Your task to perform on an android device: Search for pizza restaurants on Maps Image 0: 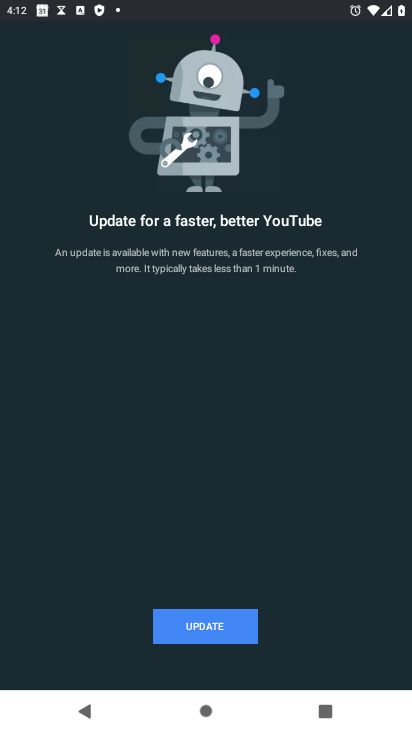
Step 0: press home button
Your task to perform on an android device: Search for pizza restaurants on Maps Image 1: 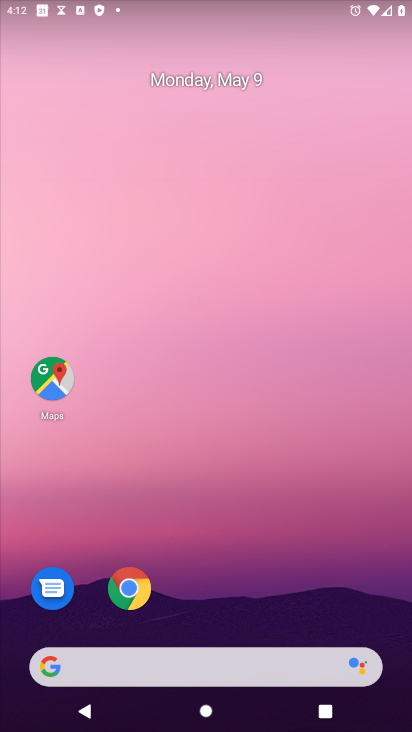
Step 1: click (56, 375)
Your task to perform on an android device: Search for pizza restaurants on Maps Image 2: 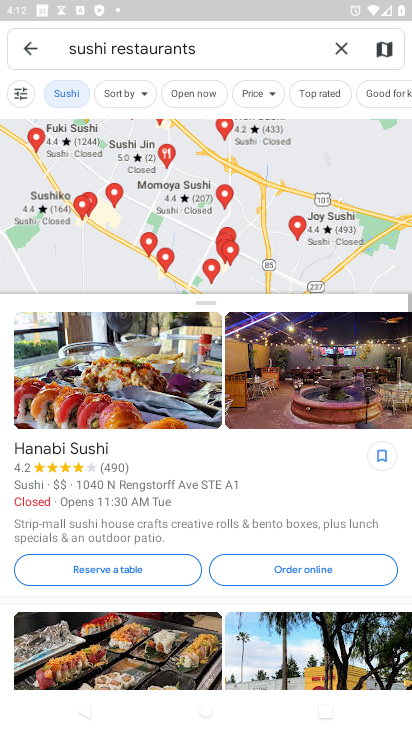
Step 2: click (330, 44)
Your task to perform on an android device: Search for pizza restaurants on Maps Image 3: 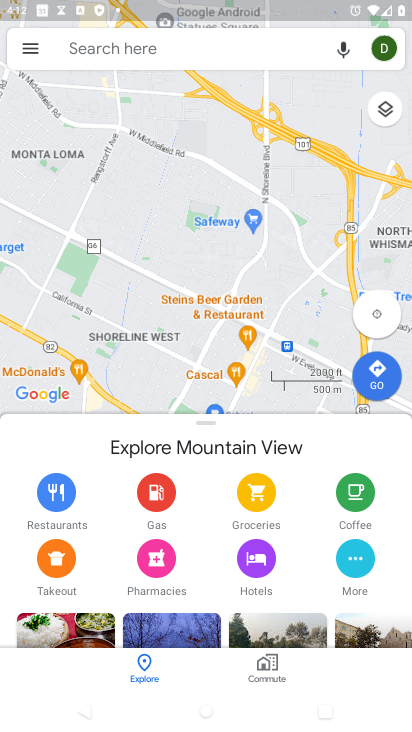
Step 3: click (135, 46)
Your task to perform on an android device: Search for pizza restaurants on Maps Image 4: 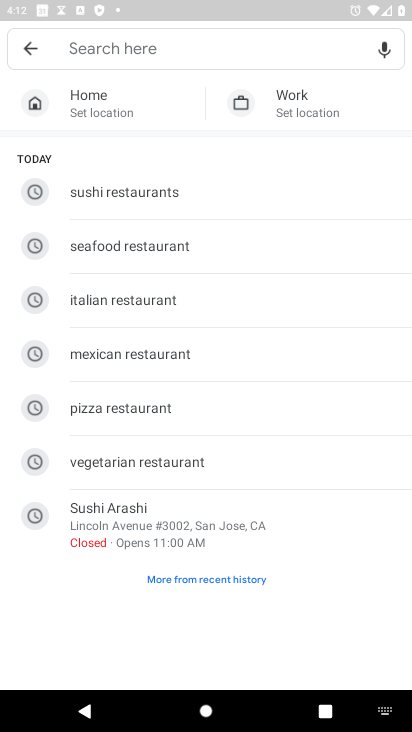
Step 4: click (112, 401)
Your task to perform on an android device: Search for pizza restaurants on Maps Image 5: 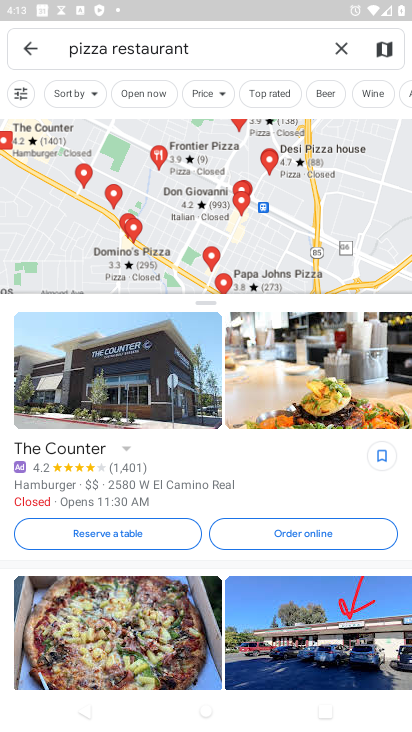
Step 5: task complete